Your task to perform on an android device: move a message to another label in the gmail app Image 0: 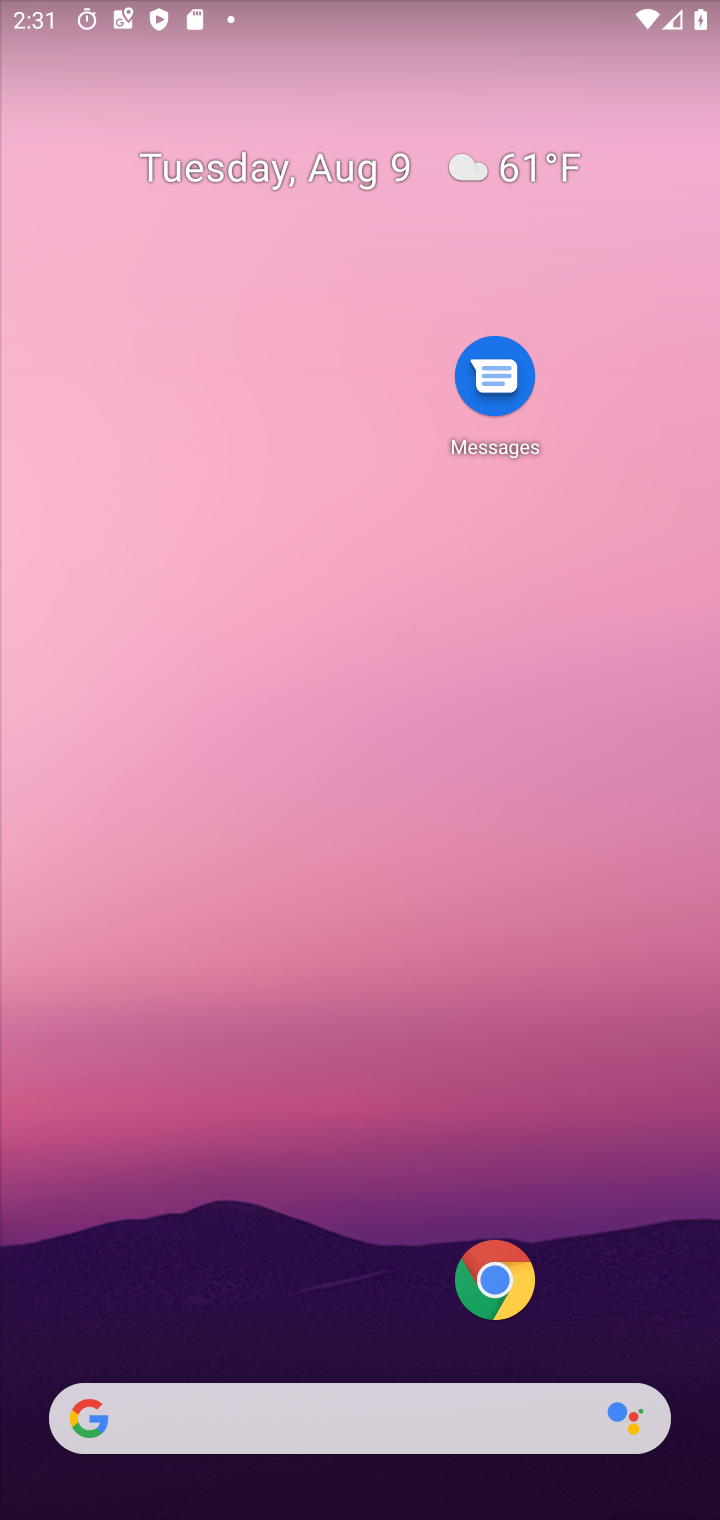
Step 0: press home button
Your task to perform on an android device: move a message to another label in the gmail app Image 1: 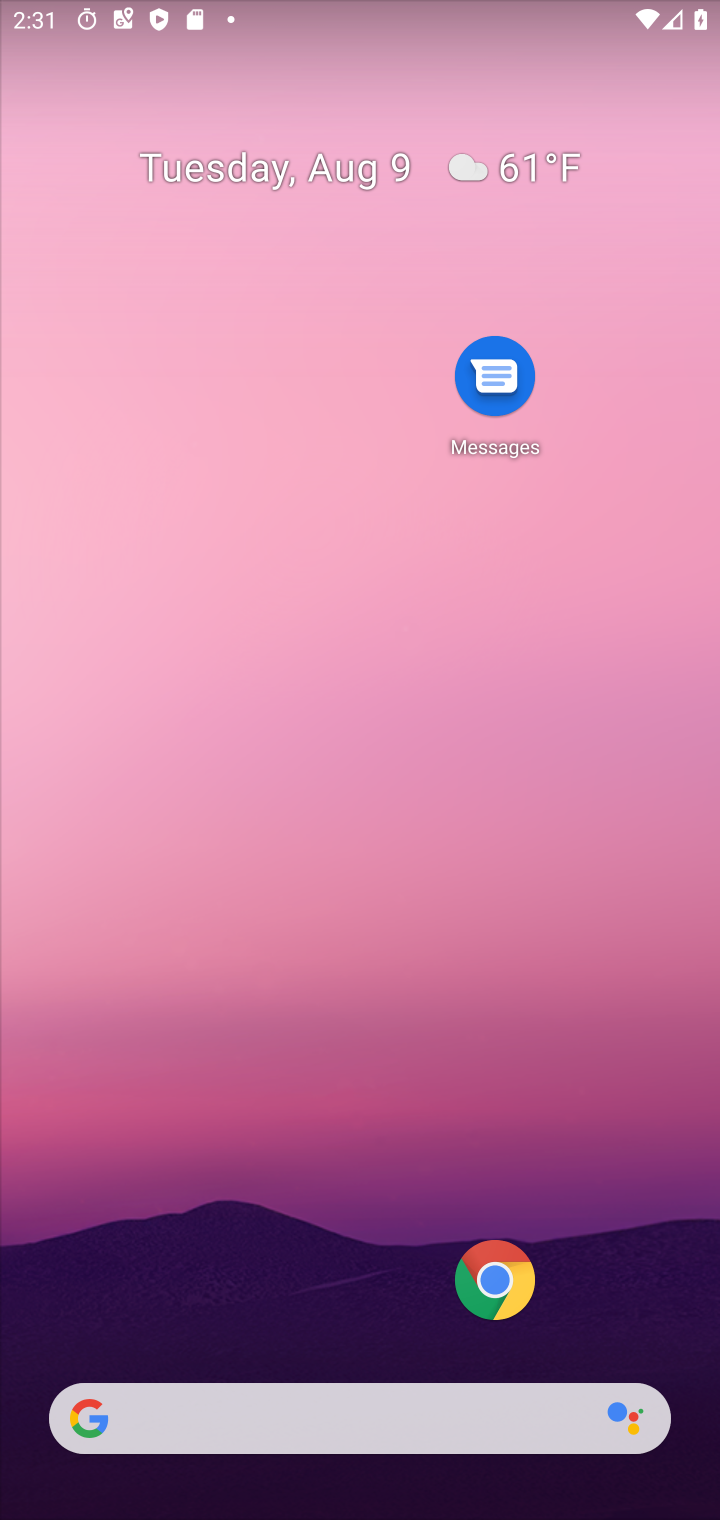
Step 1: drag from (313, 1263) to (418, 97)
Your task to perform on an android device: move a message to another label in the gmail app Image 2: 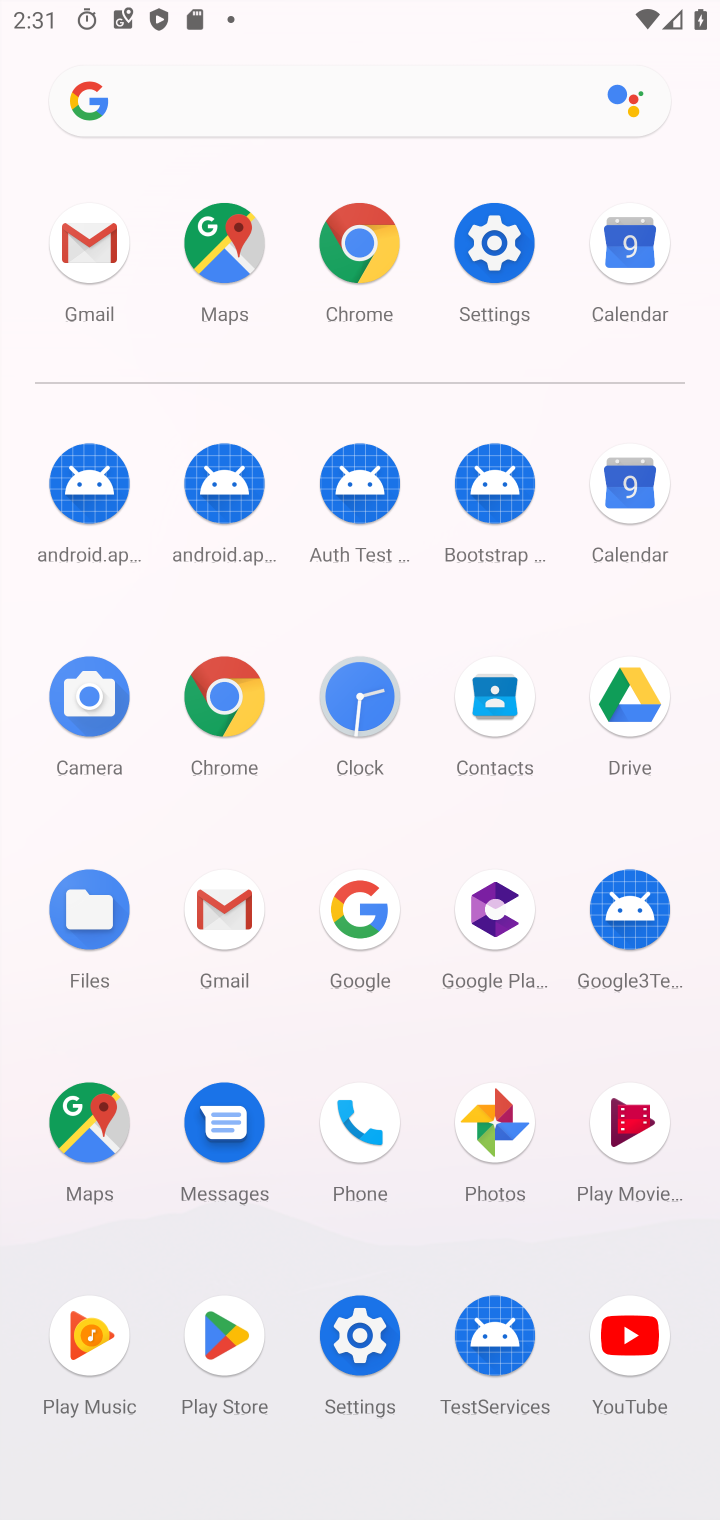
Step 2: click (89, 244)
Your task to perform on an android device: move a message to another label in the gmail app Image 3: 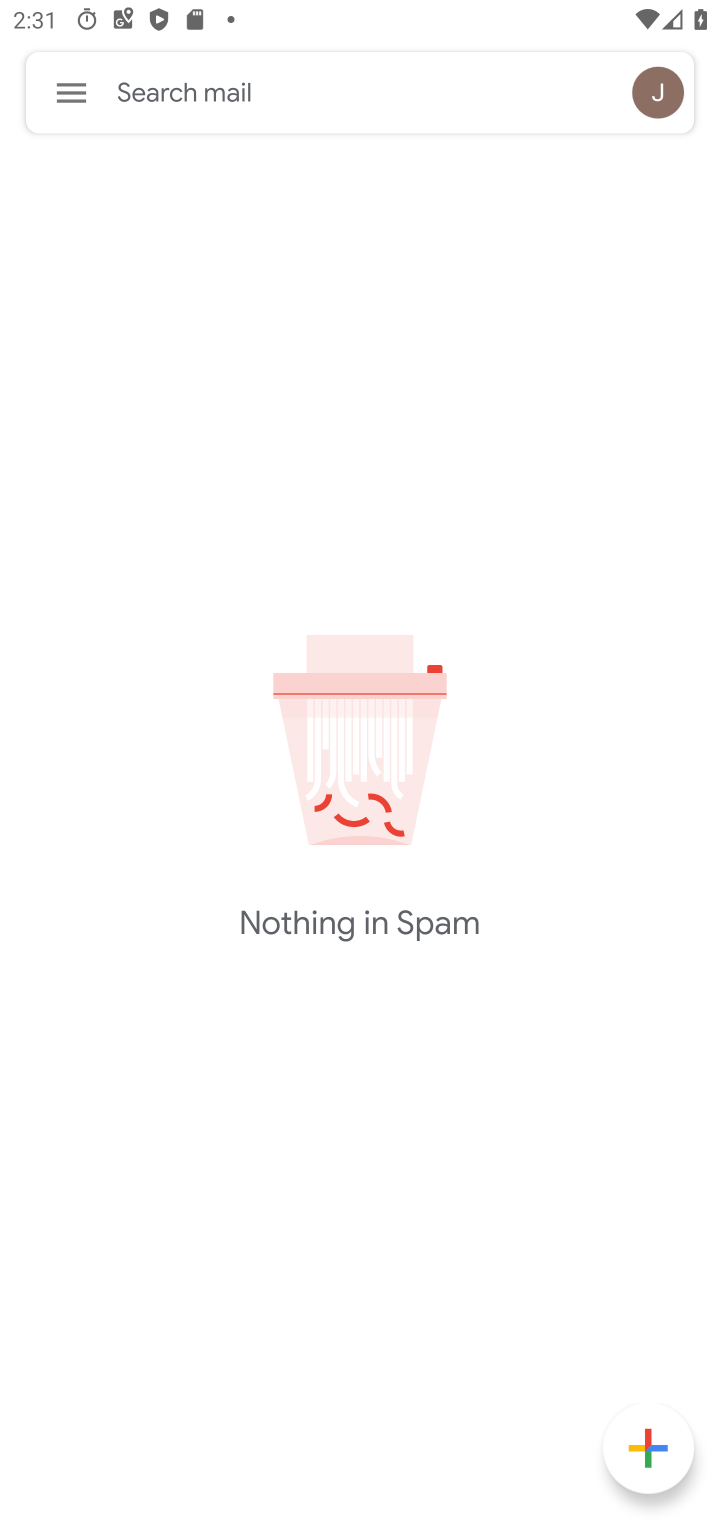
Step 3: click (78, 95)
Your task to perform on an android device: move a message to another label in the gmail app Image 4: 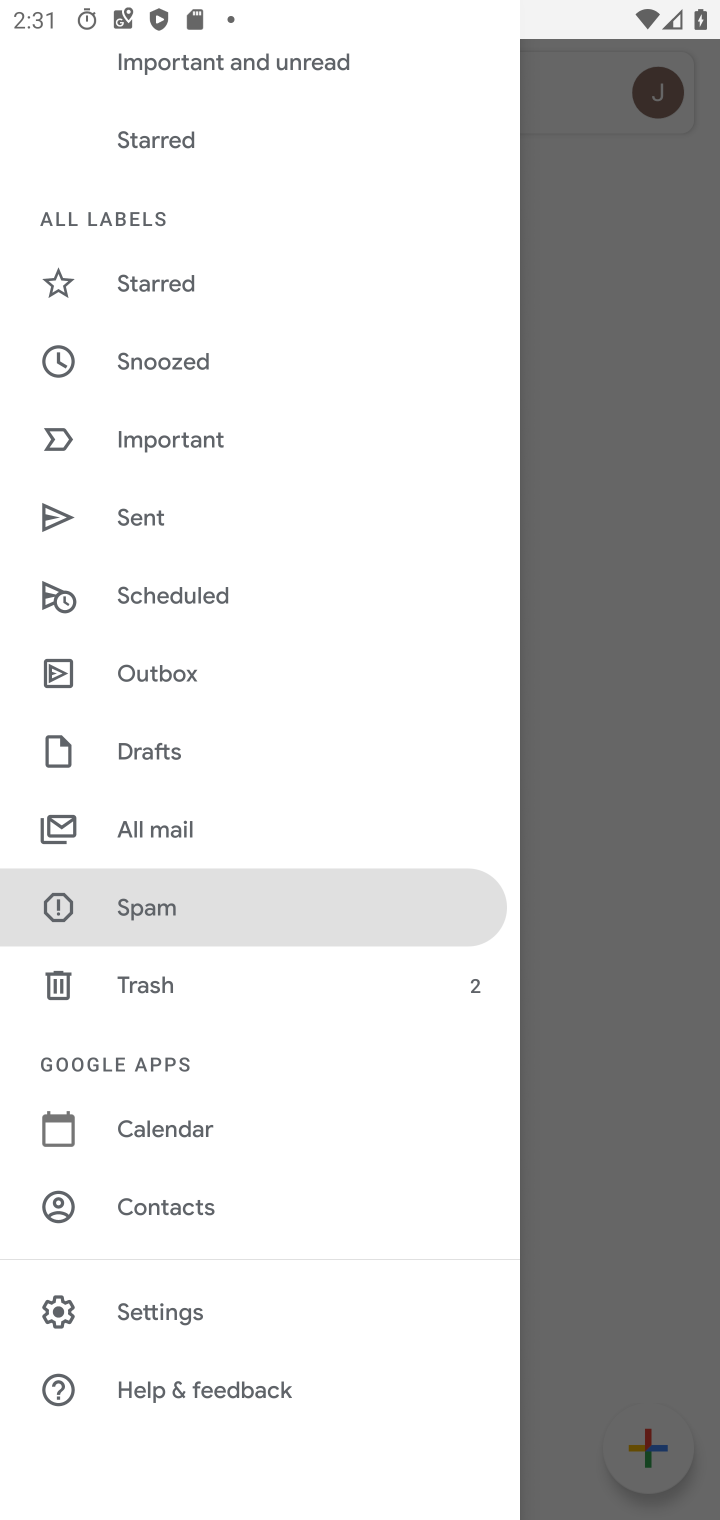
Step 4: click (255, 830)
Your task to perform on an android device: move a message to another label in the gmail app Image 5: 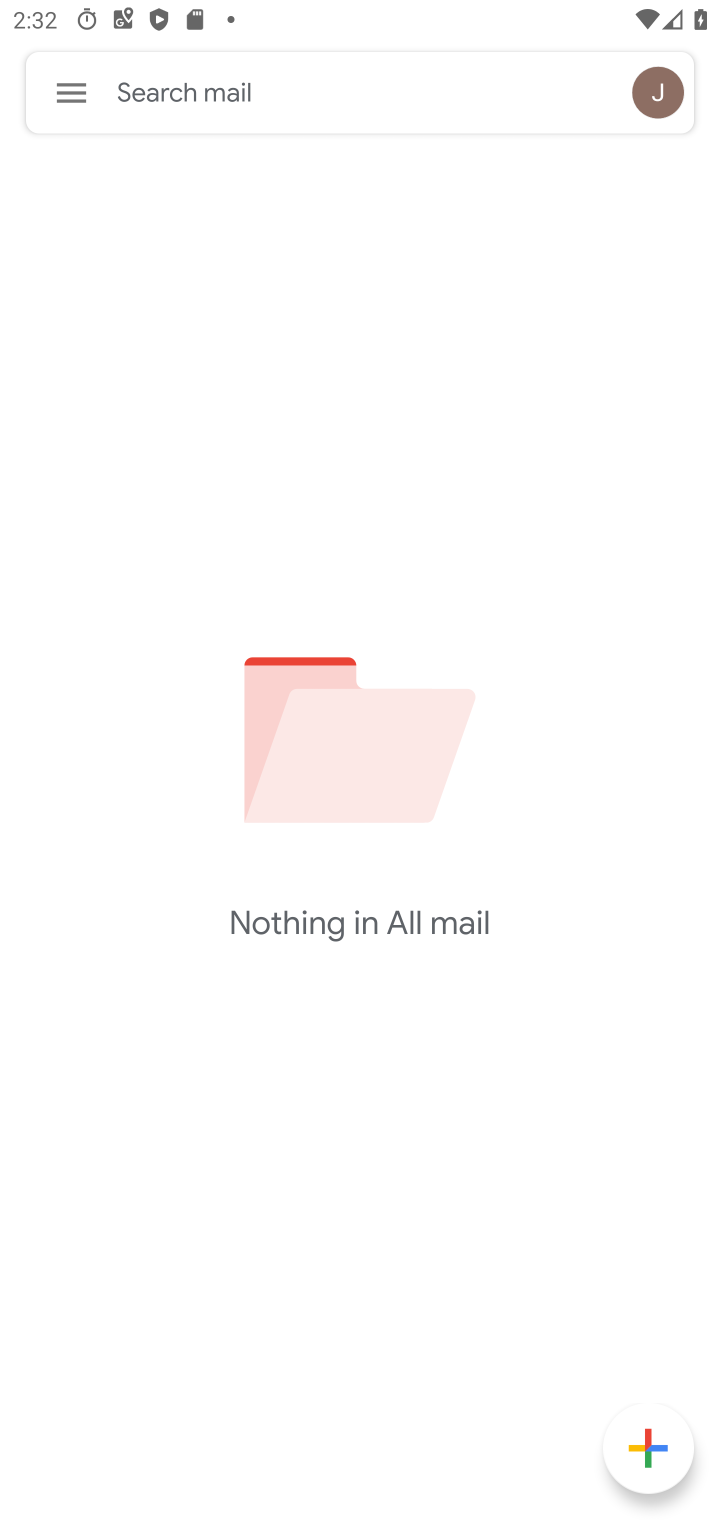
Step 5: task complete